Your task to perform on an android device: snooze an email in the gmail app Image 0: 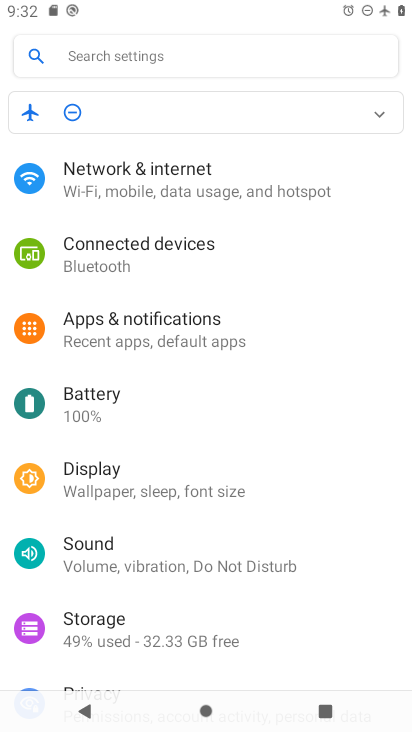
Step 0: press home button
Your task to perform on an android device: snooze an email in the gmail app Image 1: 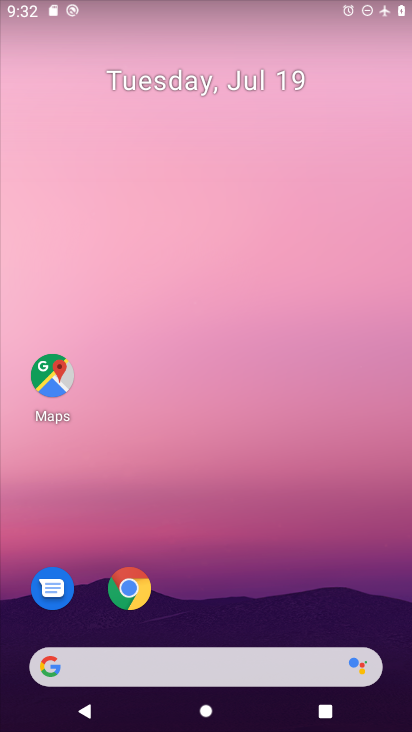
Step 1: drag from (354, 544) to (376, 84)
Your task to perform on an android device: snooze an email in the gmail app Image 2: 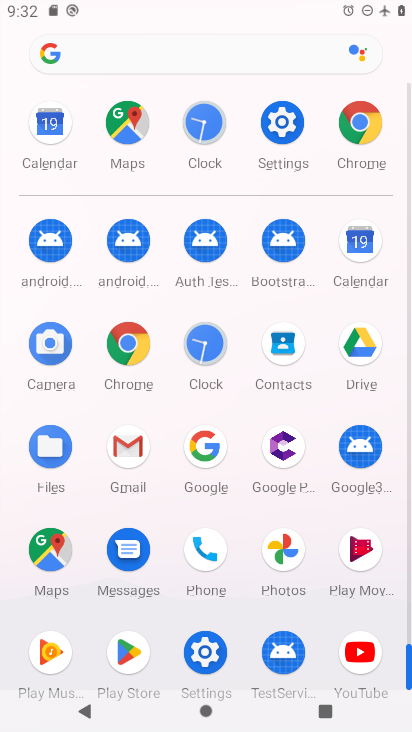
Step 2: click (137, 454)
Your task to perform on an android device: snooze an email in the gmail app Image 3: 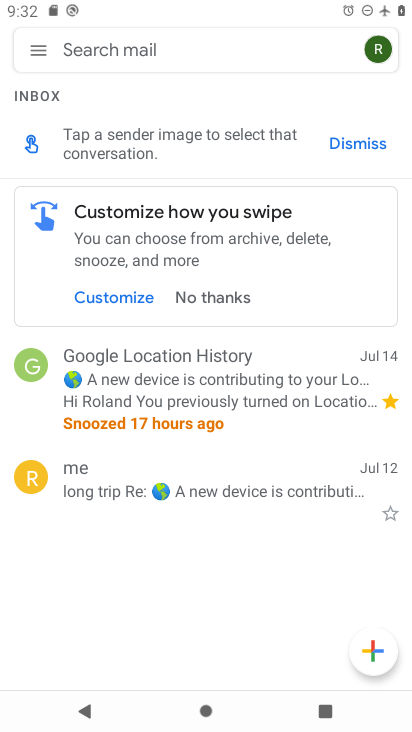
Step 3: click (46, 50)
Your task to perform on an android device: snooze an email in the gmail app Image 4: 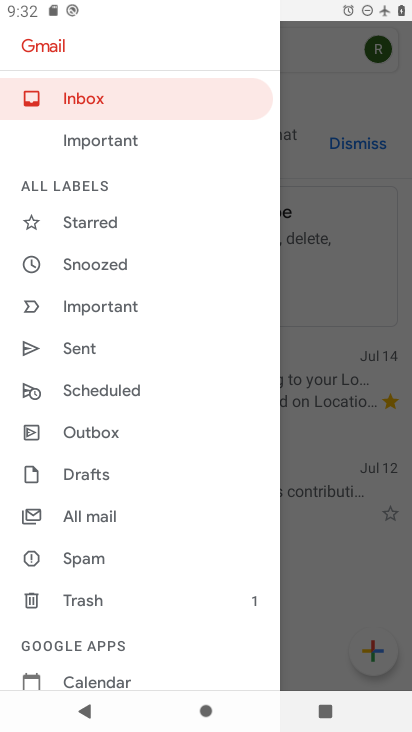
Step 4: drag from (198, 438) to (211, 222)
Your task to perform on an android device: snooze an email in the gmail app Image 5: 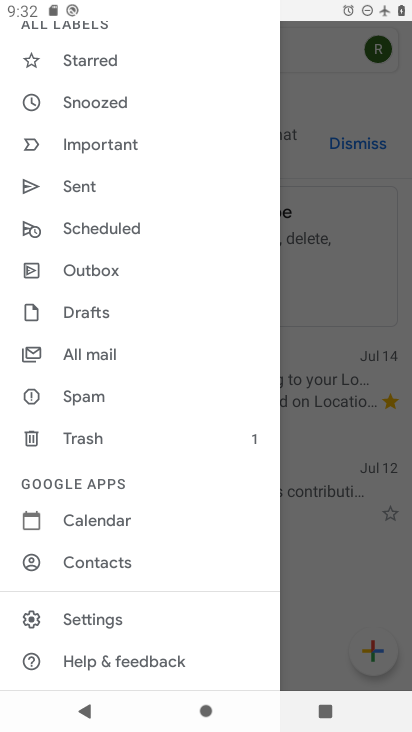
Step 5: drag from (208, 139) to (193, 291)
Your task to perform on an android device: snooze an email in the gmail app Image 6: 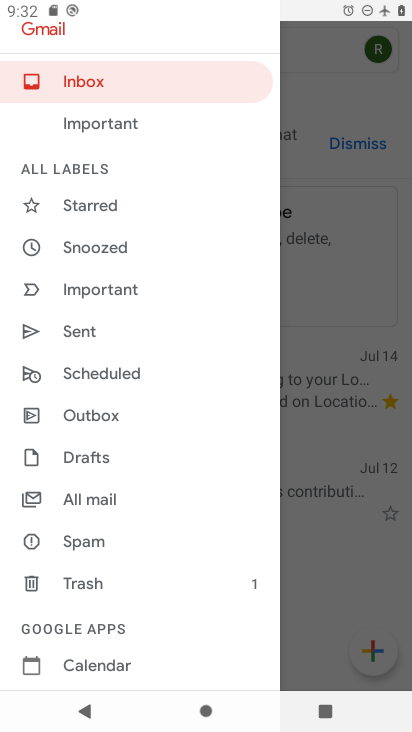
Step 6: drag from (199, 135) to (188, 270)
Your task to perform on an android device: snooze an email in the gmail app Image 7: 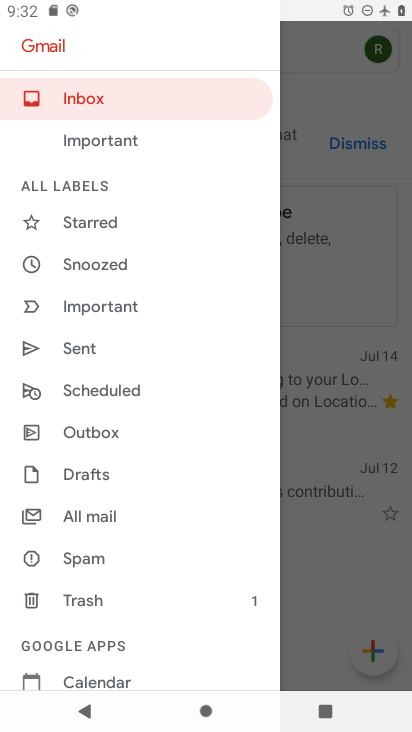
Step 7: click (134, 257)
Your task to perform on an android device: snooze an email in the gmail app Image 8: 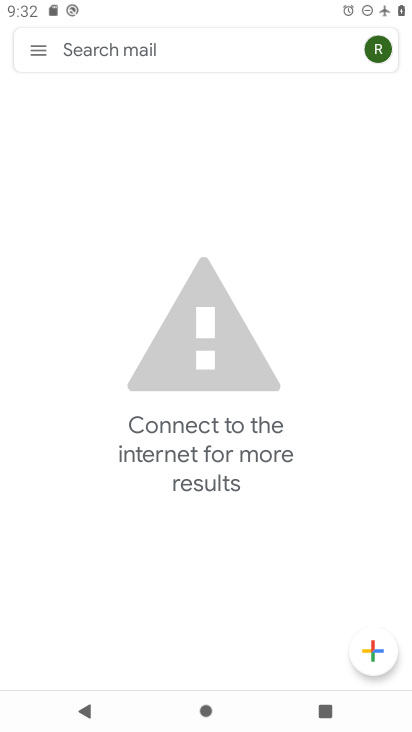
Step 8: click (43, 56)
Your task to perform on an android device: snooze an email in the gmail app Image 9: 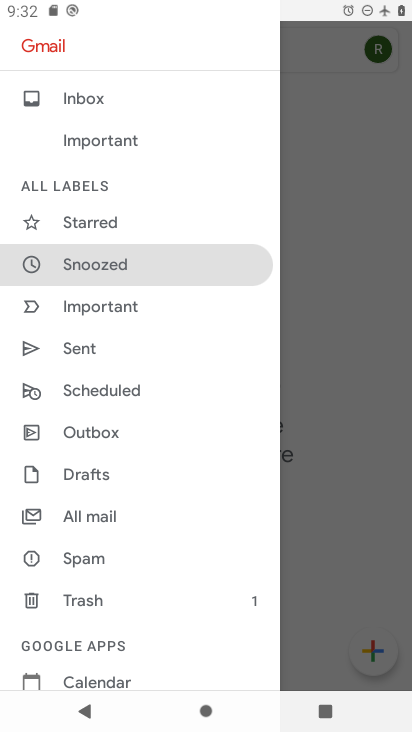
Step 9: click (177, 265)
Your task to perform on an android device: snooze an email in the gmail app Image 10: 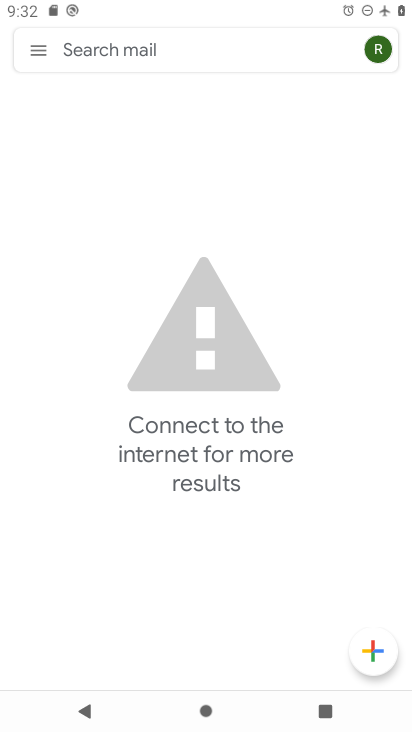
Step 10: task complete